Your task to perform on an android device: turn notification dots off Image 0: 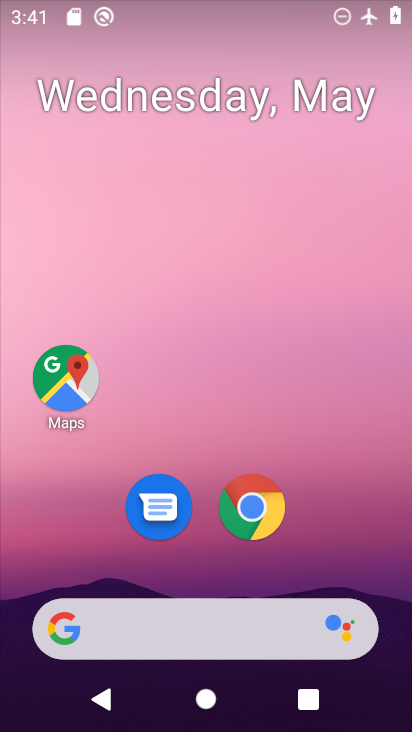
Step 0: drag from (256, 644) to (171, 183)
Your task to perform on an android device: turn notification dots off Image 1: 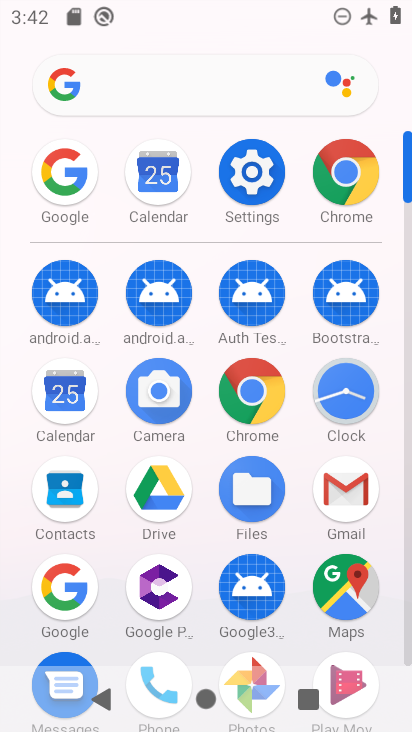
Step 1: click (249, 193)
Your task to perform on an android device: turn notification dots off Image 2: 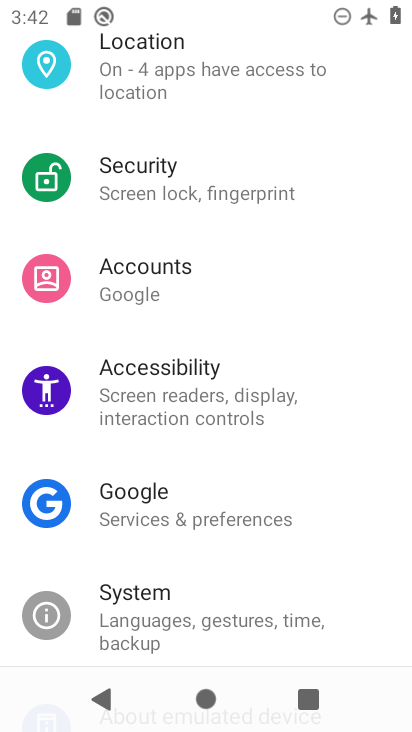
Step 2: drag from (172, 241) to (210, 622)
Your task to perform on an android device: turn notification dots off Image 3: 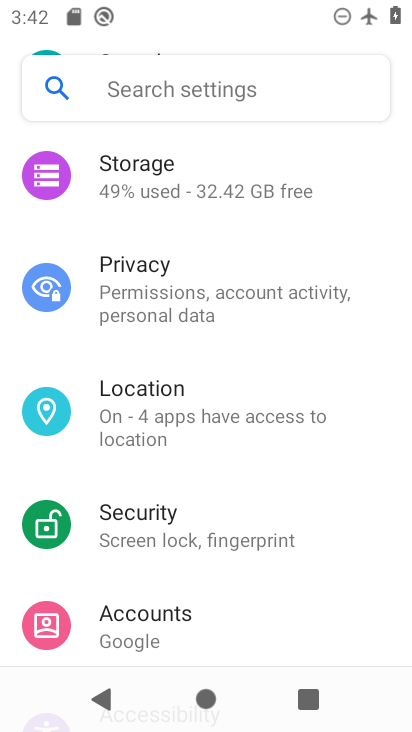
Step 3: drag from (185, 341) to (190, 721)
Your task to perform on an android device: turn notification dots off Image 4: 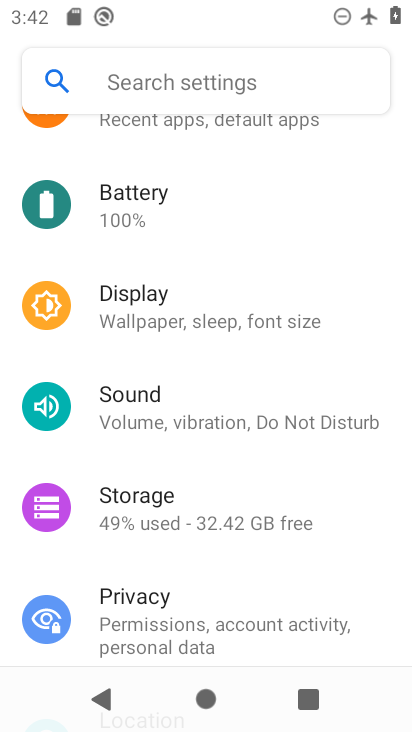
Step 4: drag from (209, 379) to (235, 665)
Your task to perform on an android device: turn notification dots off Image 5: 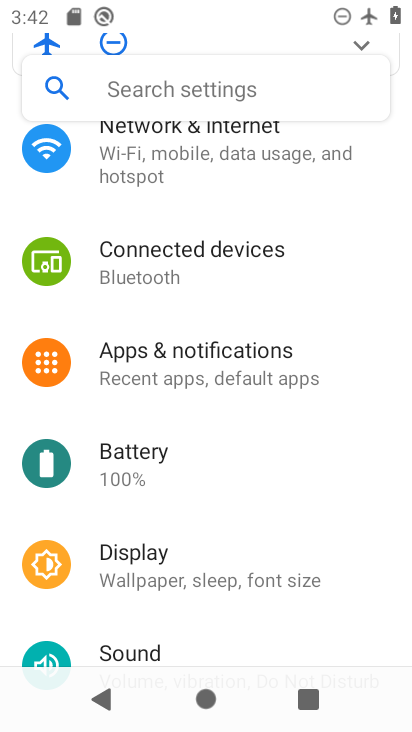
Step 5: click (169, 361)
Your task to perform on an android device: turn notification dots off Image 6: 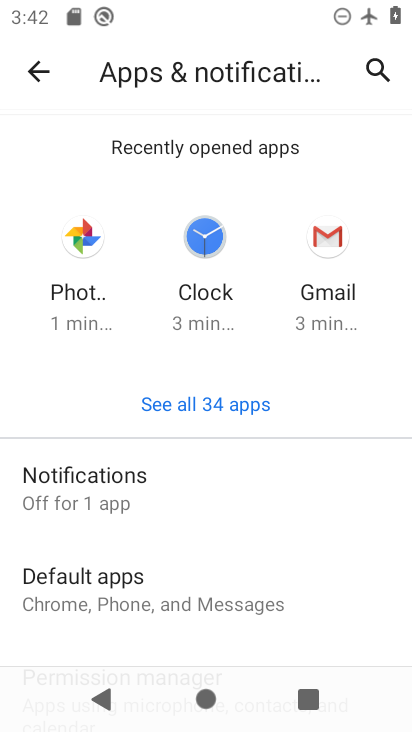
Step 6: drag from (219, 578) to (202, 430)
Your task to perform on an android device: turn notification dots off Image 7: 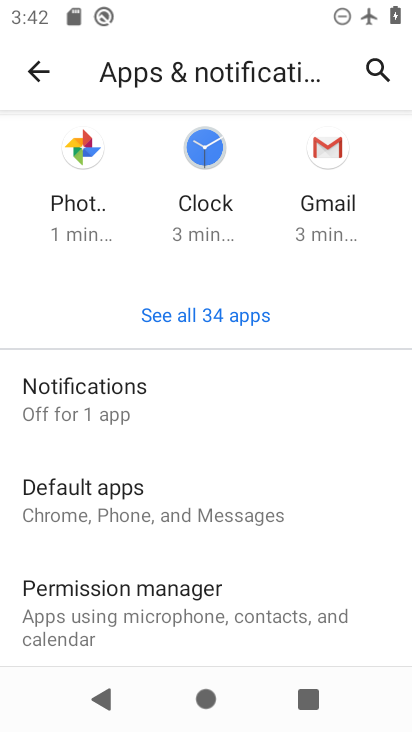
Step 7: click (189, 414)
Your task to perform on an android device: turn notification dots off Image 8: 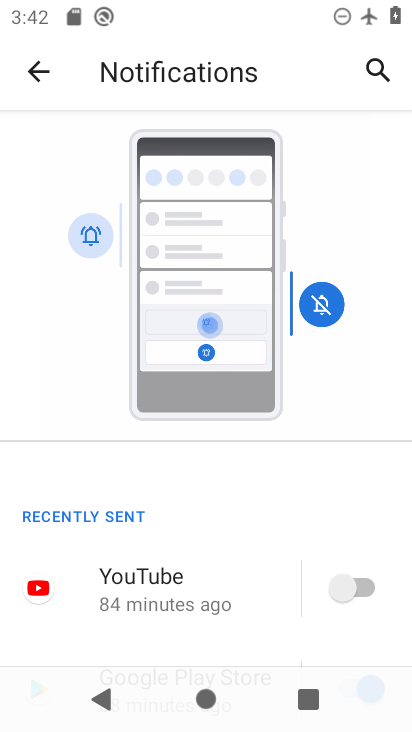
Step 8: drag from (157, 479) to (203, 0)
Your task to perform on an android device: turn notification dots off Image 9: 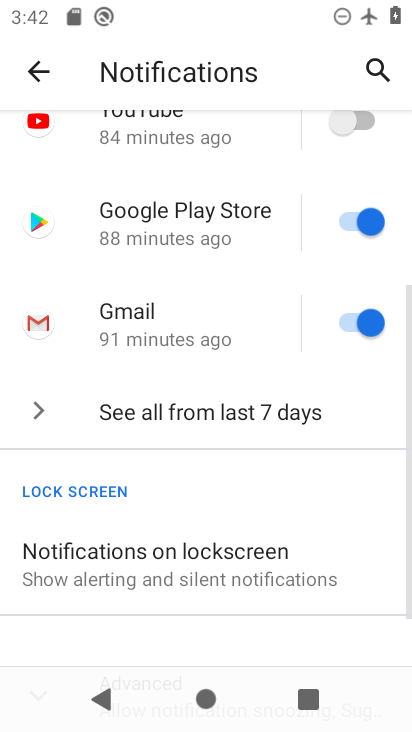
Step 9: drag from (184, 524) to (184, 22)
Your task to perform on an android device: turn notification dots off Image 10: 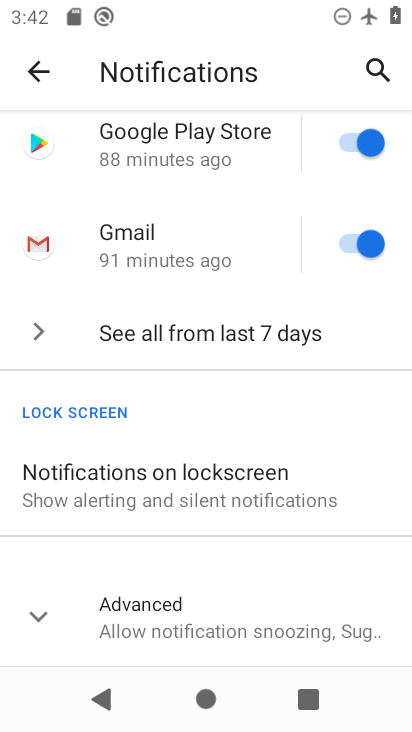
Step 10: click (162, 601)
Your task to perform on an android device: turn notification dots off Image 11: 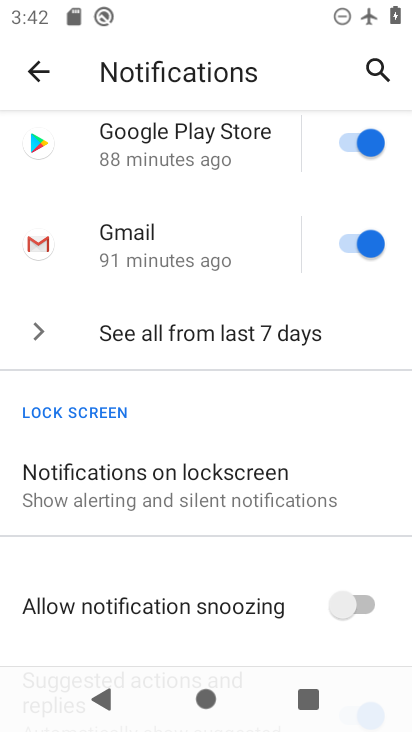
Step 11: drag from (145, 531) to (147, 54)
Your task to perform on an android device: turn notification dots off Image 12: 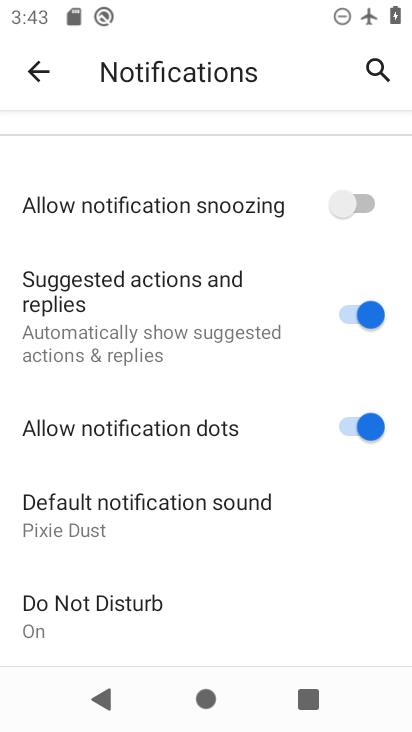
Step 12: click (267, 428)
Your task to perform on an android device: turn notification dots off Image 13: 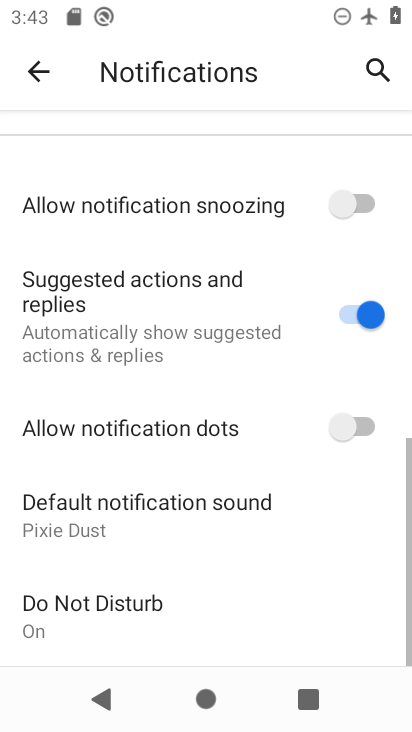
Step 13: task complete